Your task to perform on an android device: open app "Airtel Thanks" (install if not already installed) and go to login screen Image 0: 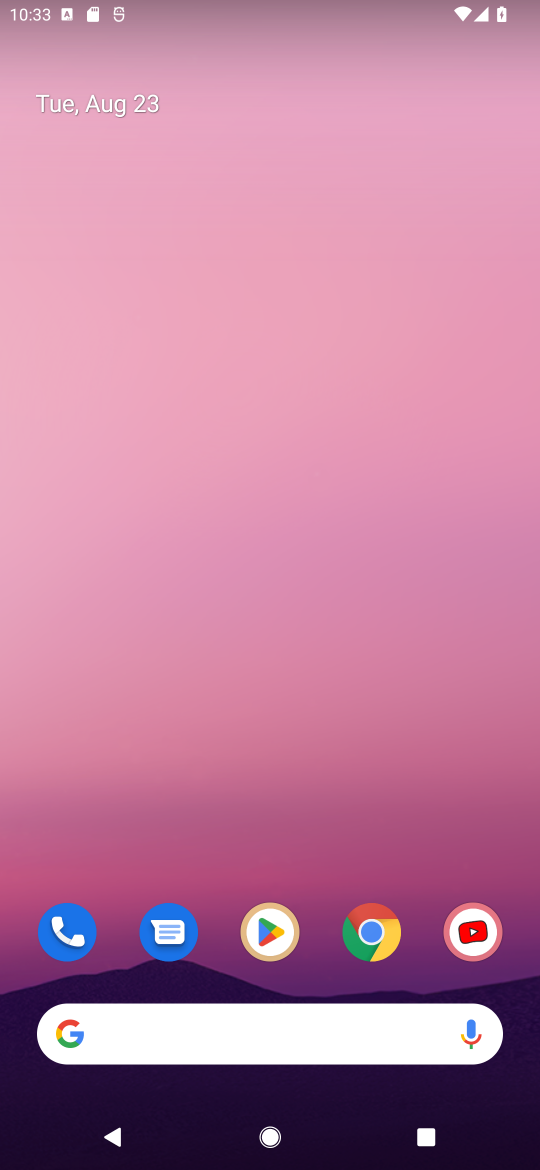
Step 0: click (259, 936)
Your task to perform on an android device: open app "Airtel Thanks" (install if not already installed) and go to login screen Image 1: 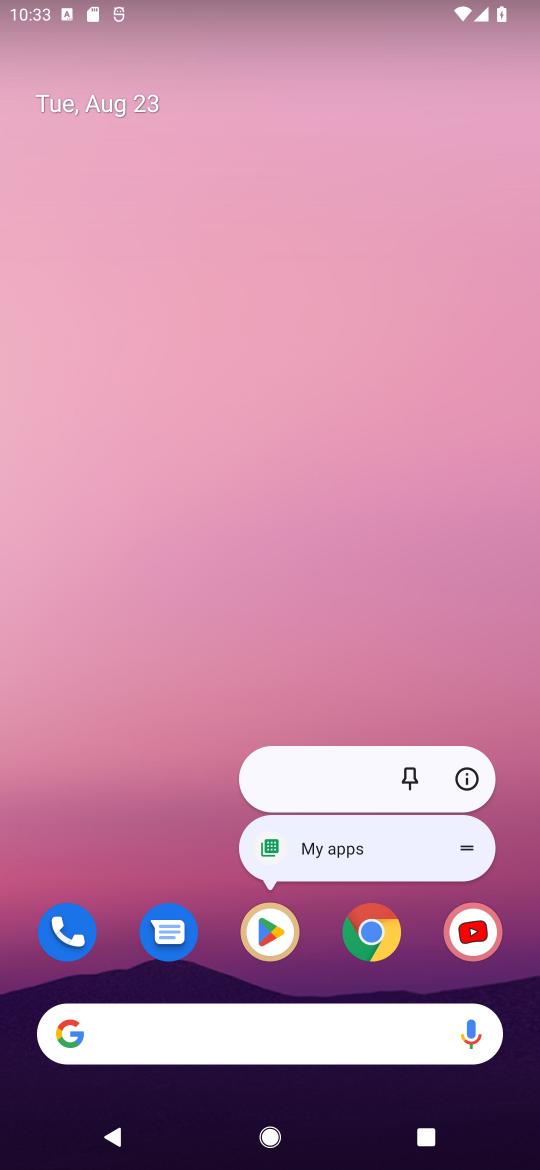
Step 1: click (266, 931)
Your task to perform on an android device: open app "Airtel Thanks" (install if not already installed) and go to login screen Image 2: 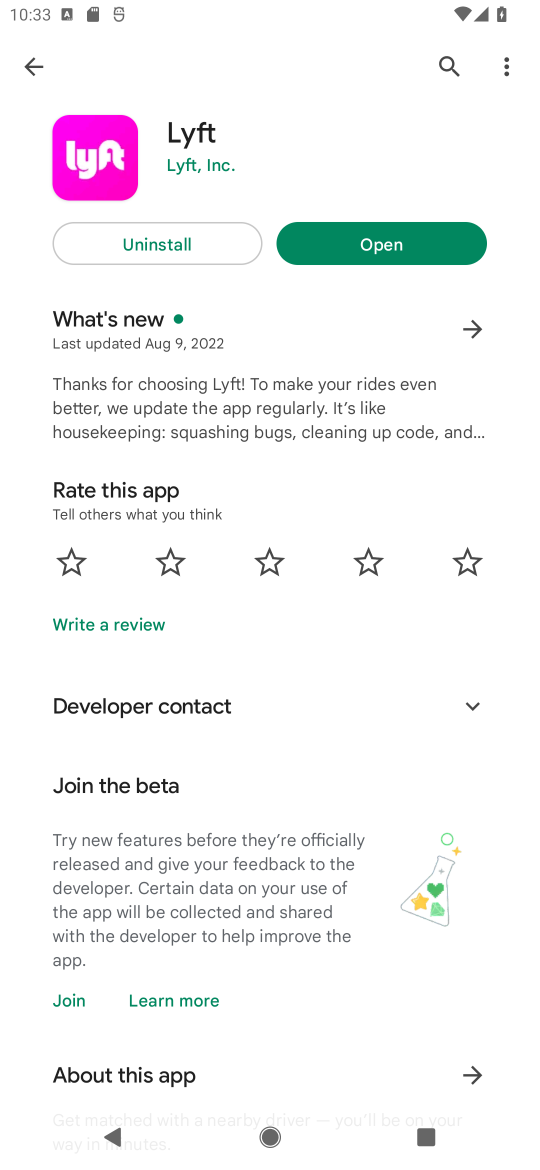
Step 2: click (448, 56)
Your task to perform on an android device: open app "Airtel Thanks" (install if not already installed) and go to login screen Image 3: 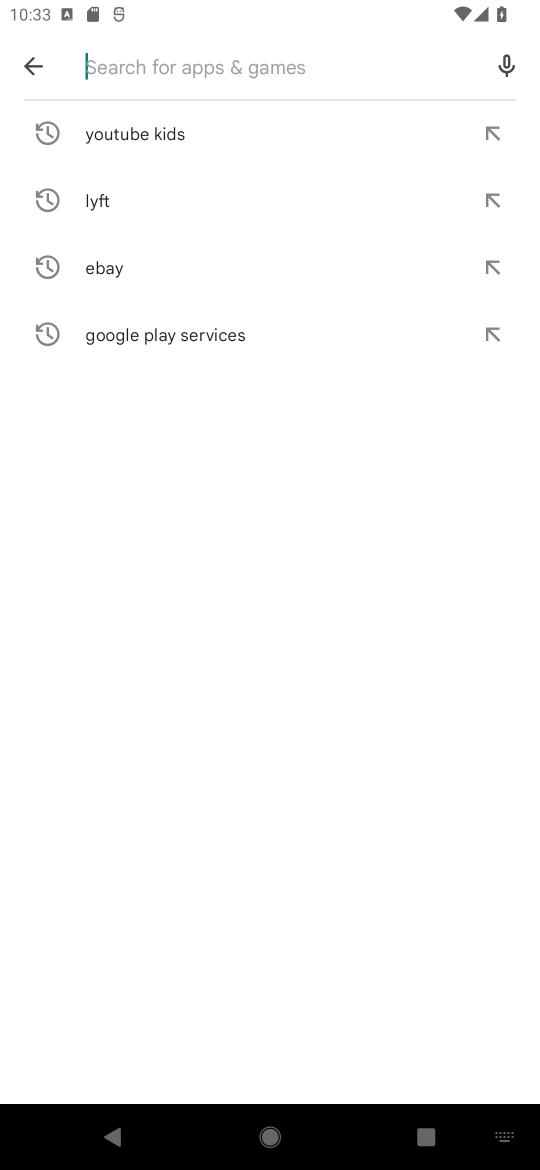
Step 3: click (106, 57)
Your task to perform on an android device: open app "Airtel Thanks" (install if not already installed) and go to login screen Image 4: 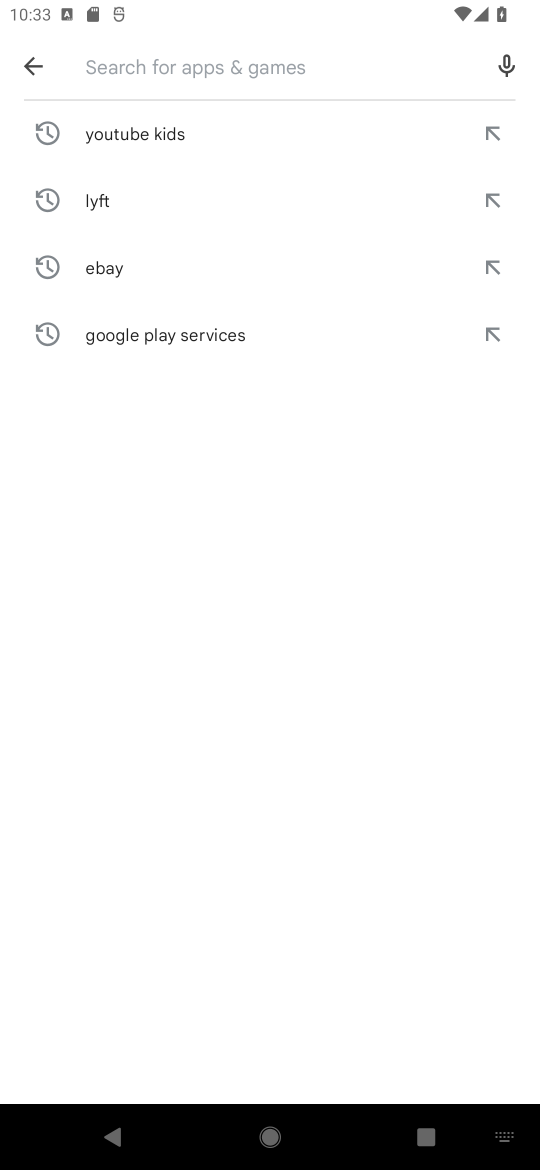
Step 4: type "Airtel Thanks"
Your task to perform on an android device: open app "Airtel Thanks" (install if not already installed) and go to login screen Image 5: 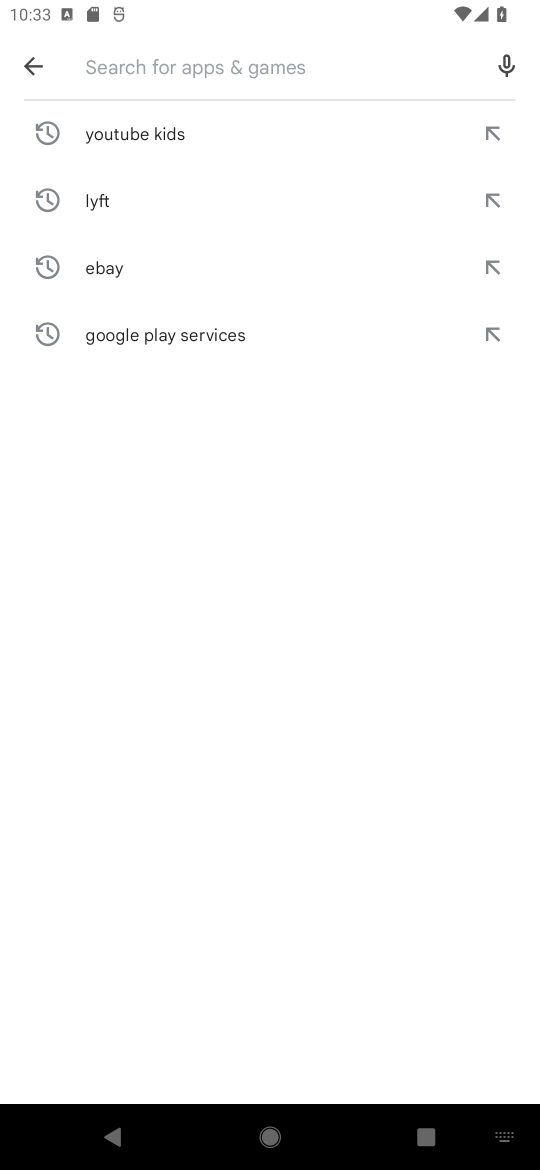
Step 5: click (394, 802)
Your task to perform on an android device: open app "Airtel Thanks" (install if not already installed) and go to login screen Image 6: 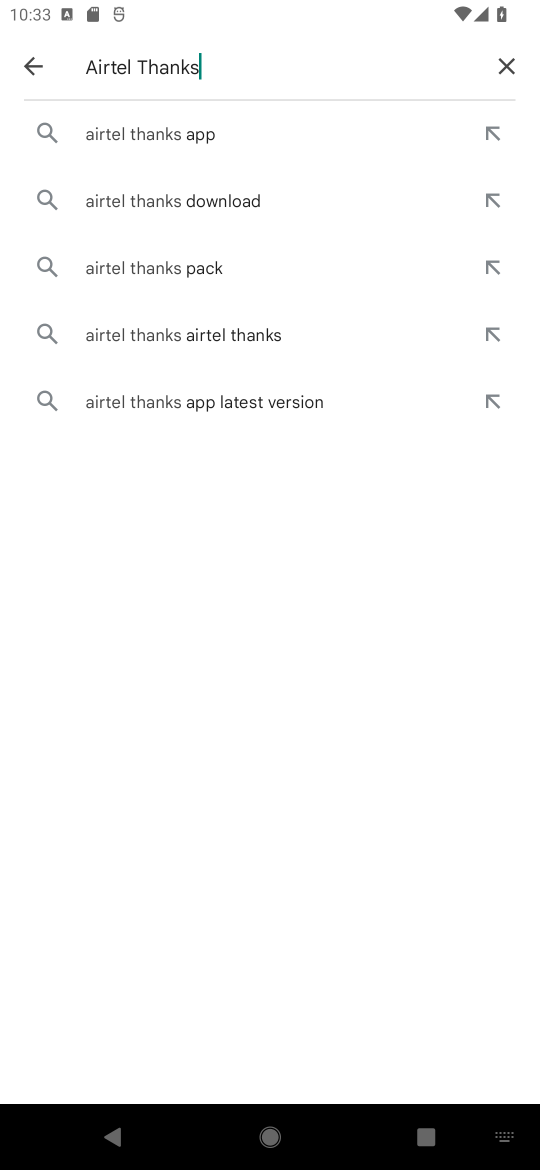
Step 6: click (234, 137)
Your task to perform on an android device: open app "Airtel Thanks" (install if not already installed) and go to login screen Image 7: 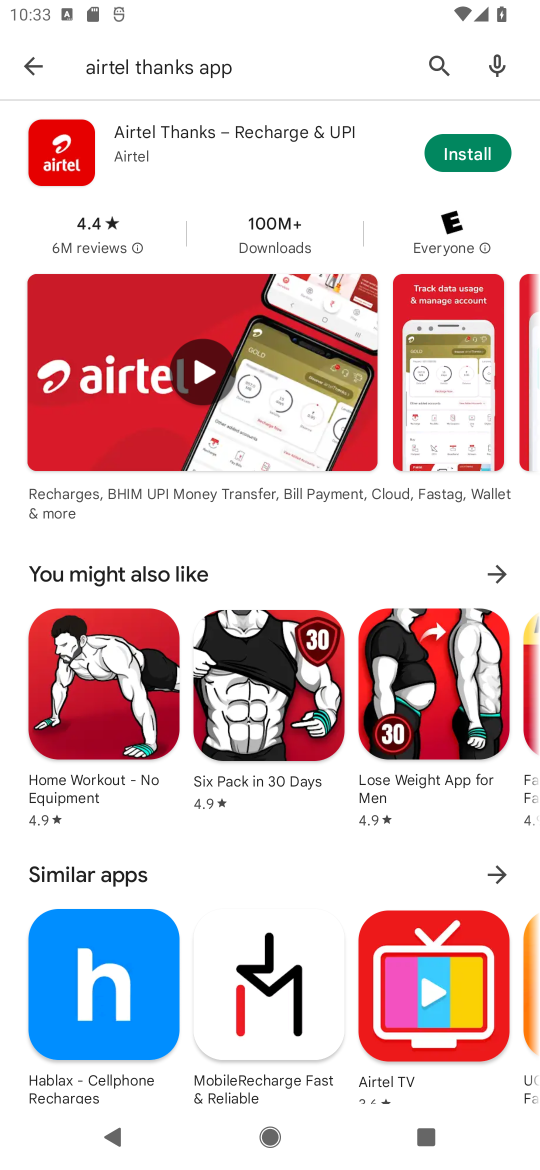
Step 7: click (463, 160)
Your task to perform on an android device: open app "Airtel Thanks" (install if not already installed) and go to login screen Image 8: 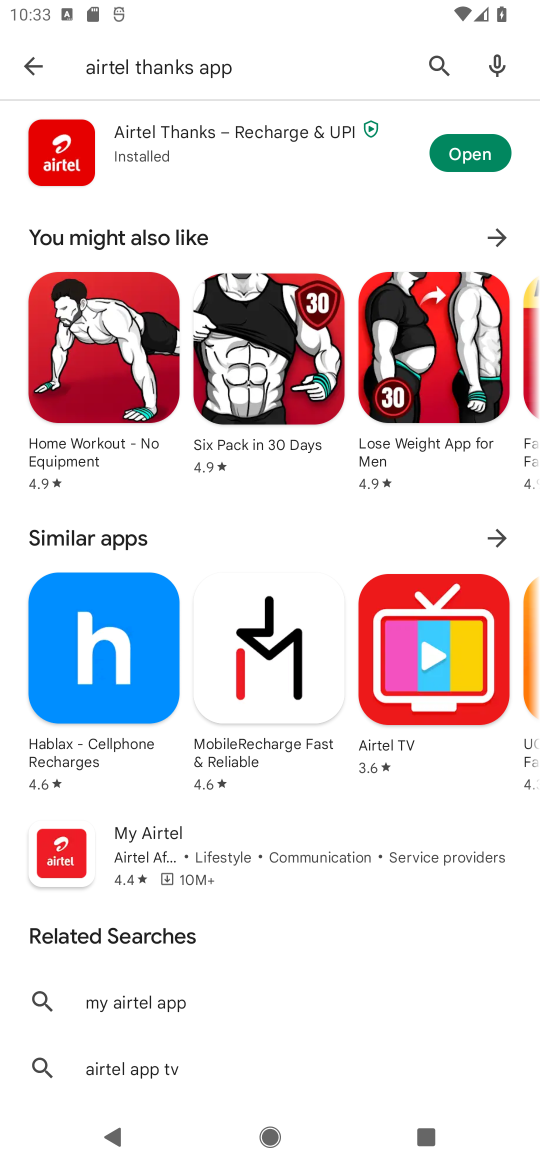
Step 8: click (449, 148)
Your task to perform on an android device: open app "Airtel Thanks" (install if not already installed) and go to login screen Image 9: 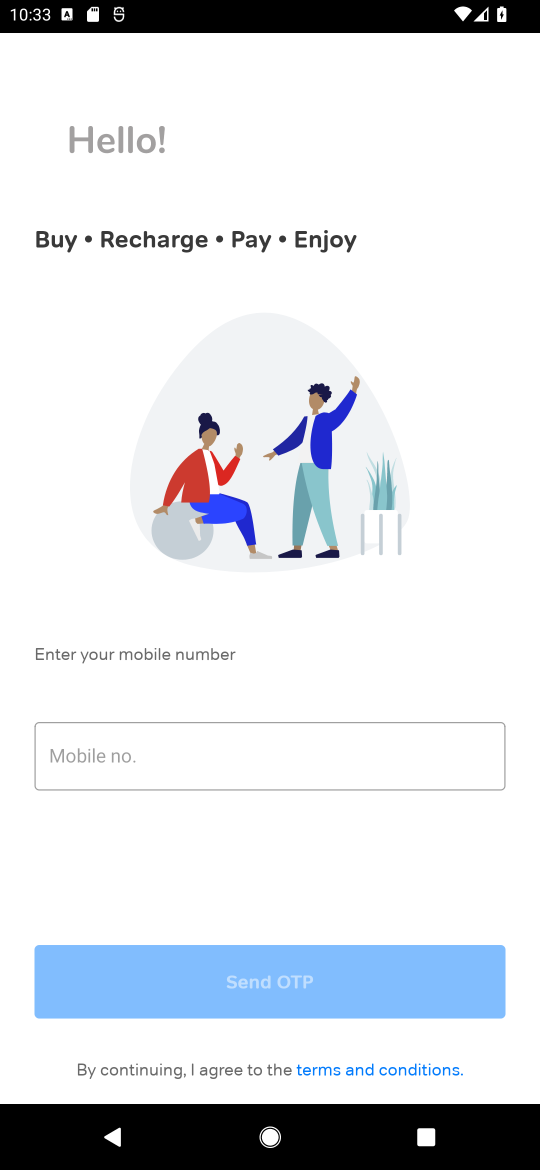
Step 9: task complete